Your task to perform on an android device: open app "The Home Depot" Image 0: 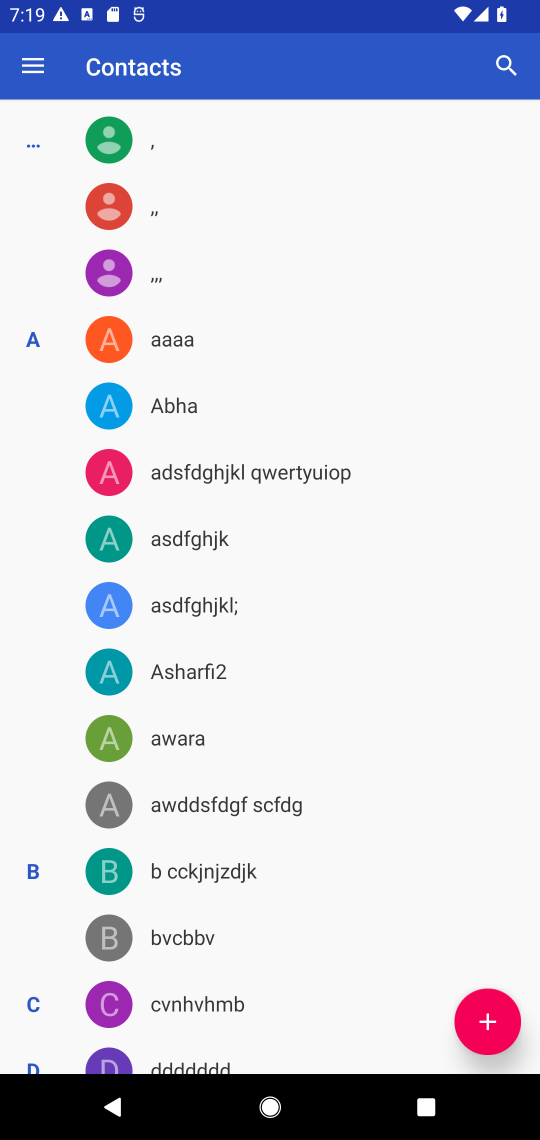
Step 0: press home button
Your task to perform on an android device: open app "The Home Depot" Image 1: 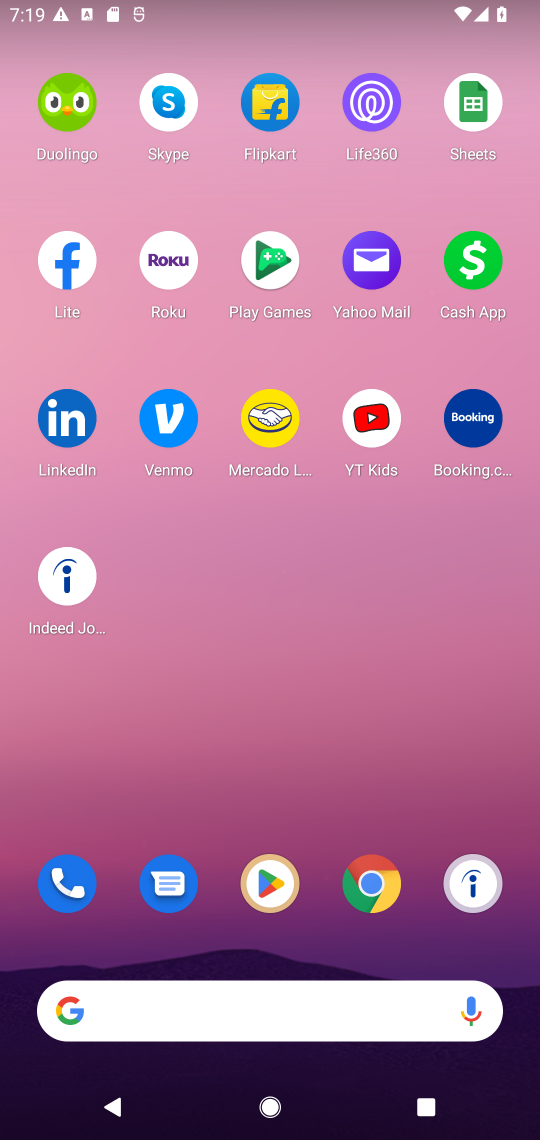
Step 1: drag from (309, 970) to (300, 91)
Your task to perform on an android device: open app "The Home Depot" Image 2: 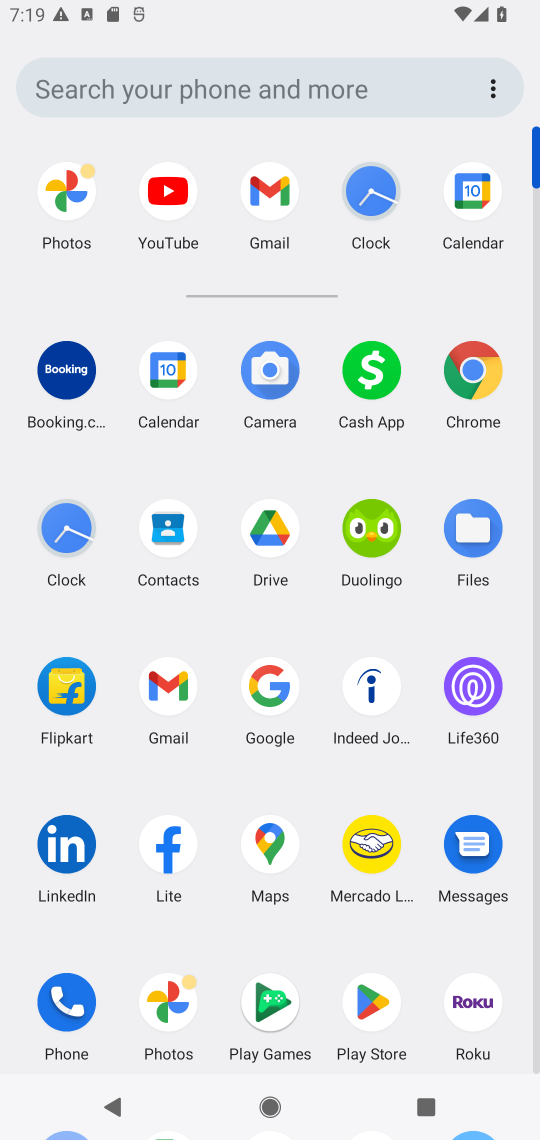
Step 2: click (374, 999)
Your task to perform on an android device: open app "The Home Depot" Image 3: 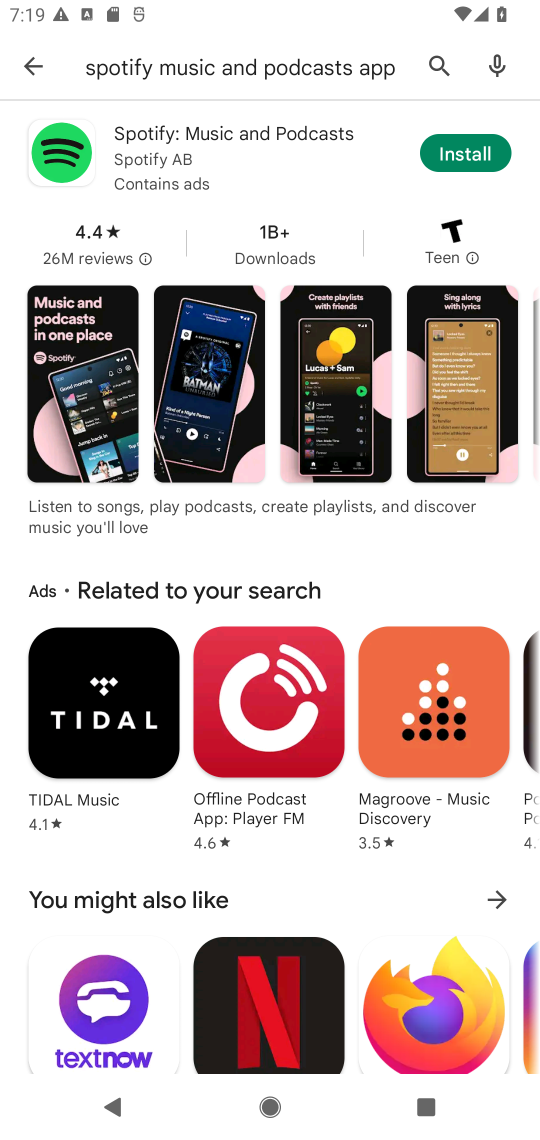
Step 3: click (432, 55)
Your task to perform on an android device: open app "The Home Depot" Image 4: 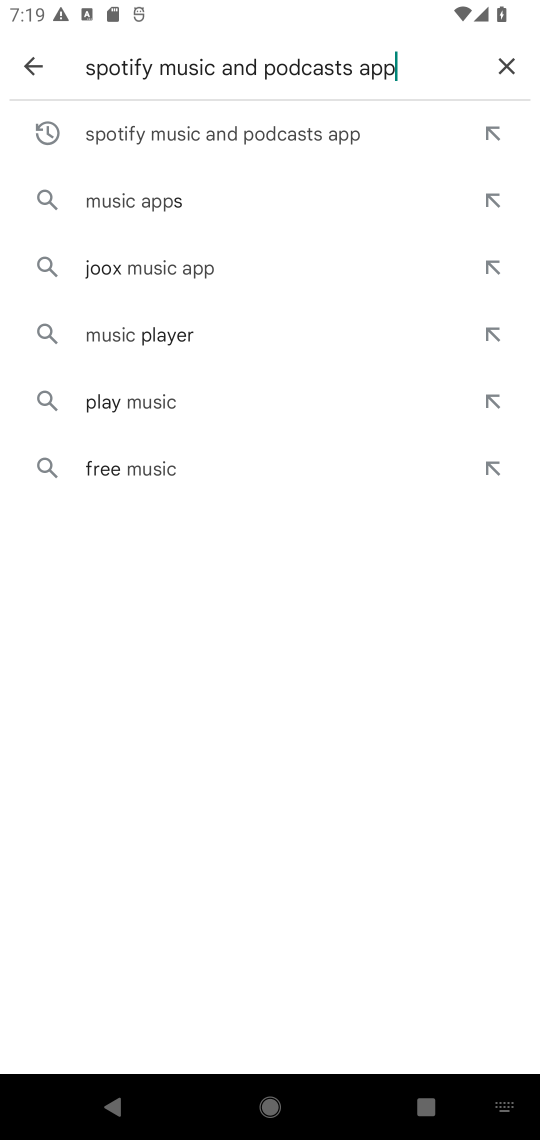
Step 4: click (505, 60)
Your task to perform on an android device: open app "The Home Depot" Image 5: 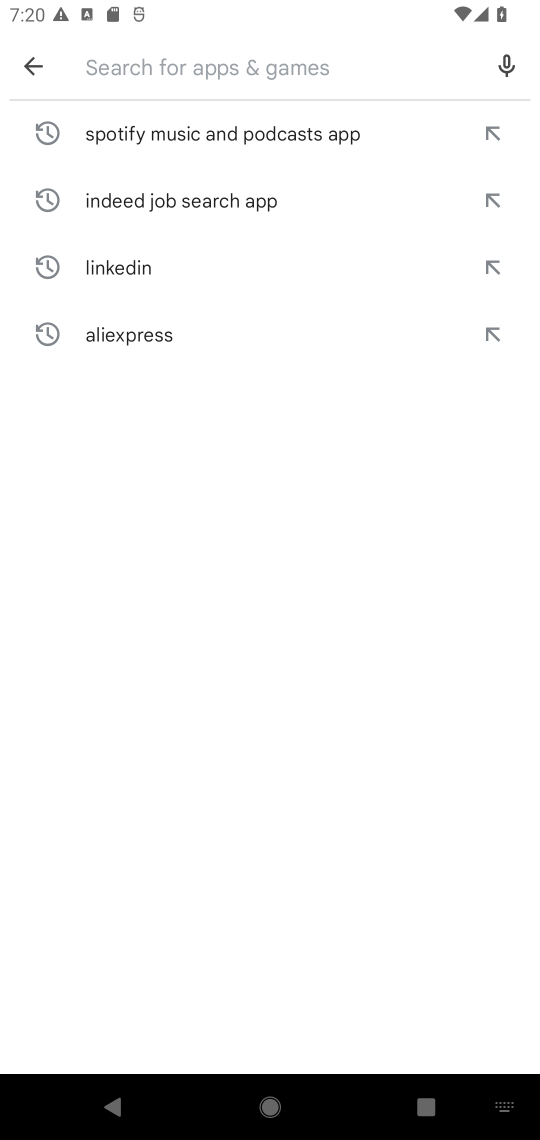
Step 5: type "The Home Depot"
Your task to perform on an android device: open app "The Home Depot" Image 6: 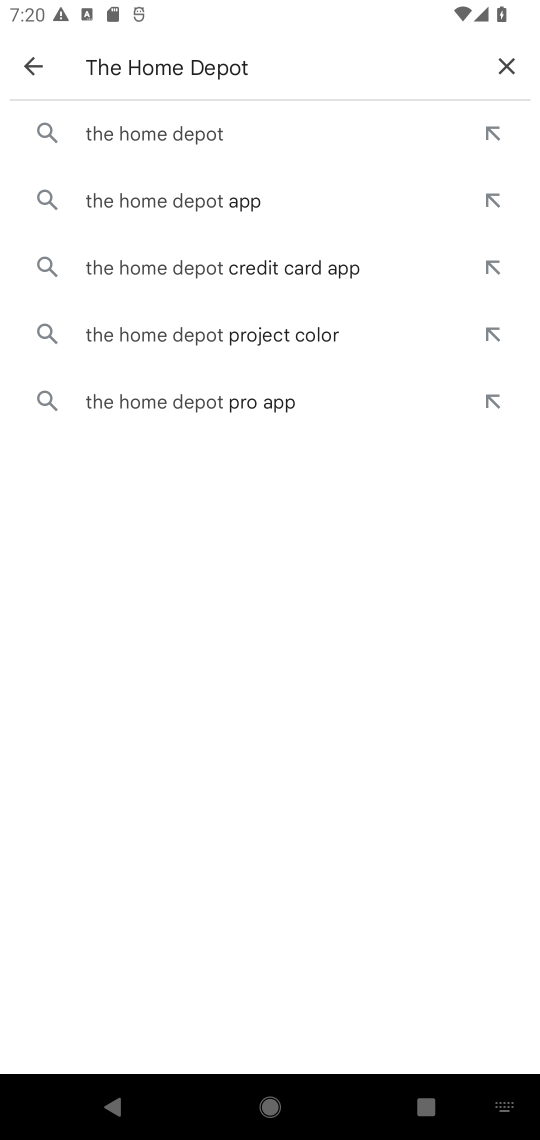
Step 6: click (129, 129)
Your task to perform on an android device: open app "The Home Depot" Image 7: 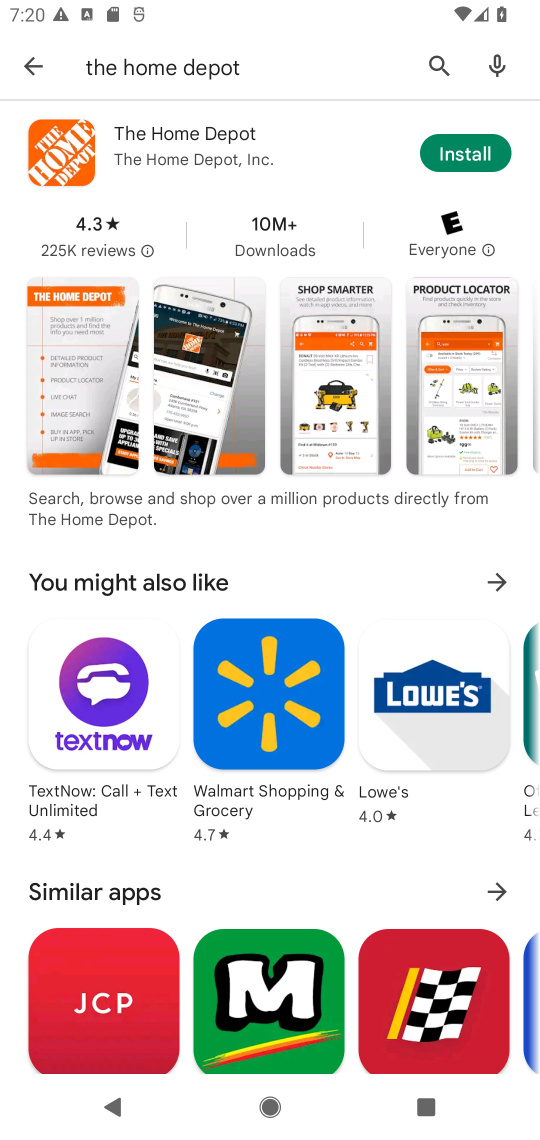
Step 7: task complete